Your task to perform on an android device: turn on improve location accuracy Image 0: 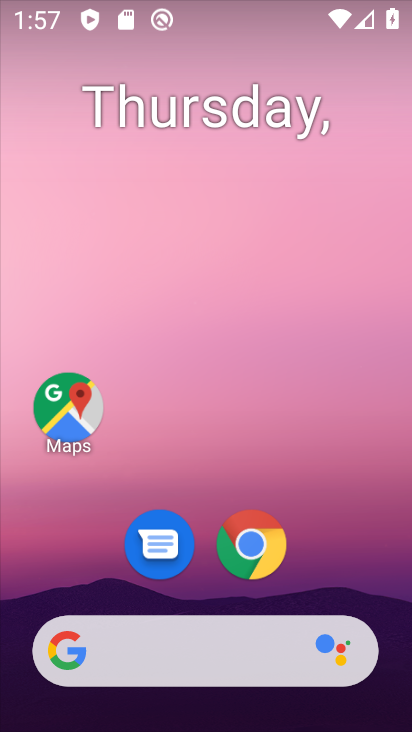
Step 0: drag from (312, 583) to (169, 118)
Your task to perform on an android device: turn on improve location accuracy Image 1: 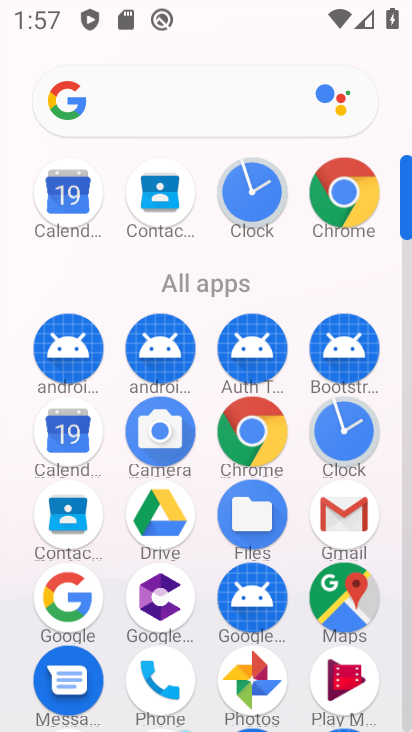
Step 1: drag from (212, 609) to (201, 240)
Your task to perform on an android device: turn on improve location accuracy Image 2: 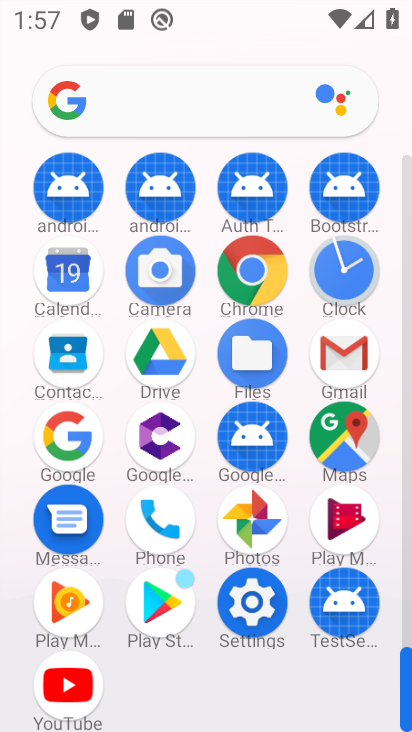
Step 2: click (255, 611)
Your task to perform on an android device: turn on improve location accuracy Image 3: 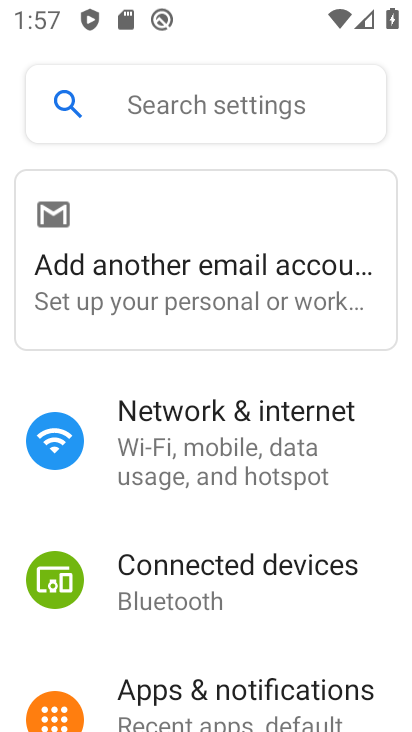
Step 3: drag from (255, 611) to (256, 177)
Your task to perform on an android device: turn on improve location accuracy Image 4: 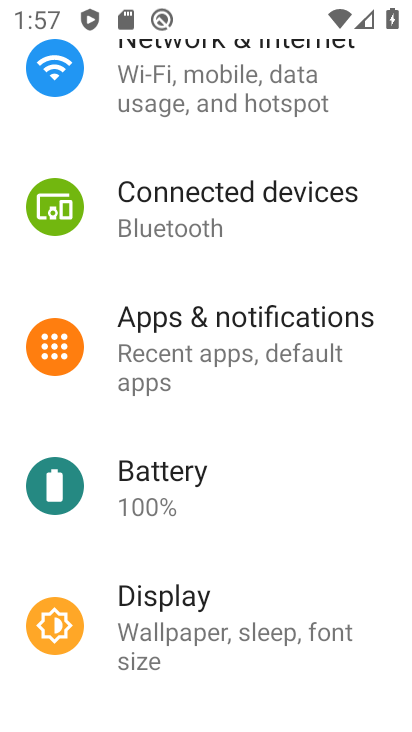
Step 4: drag from (297, 686) to (270, 330)
Your task to perform on an android device: turn on improve location accuracy Image 5: 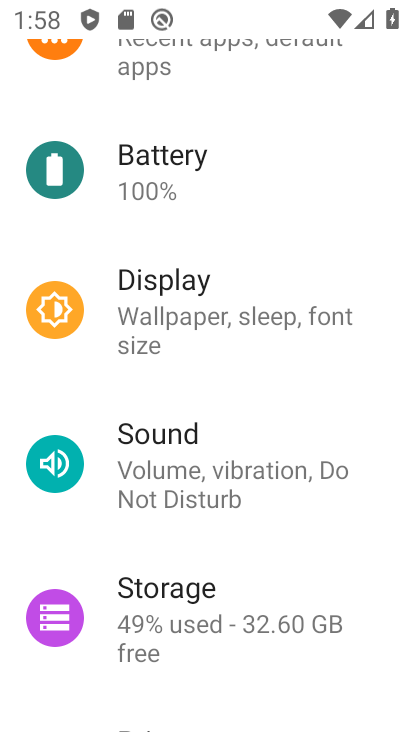
Step 5: drag from (261, 660) to (265, 244)
Your task to perform on an android device: turn on improve location accuracy Image 6: 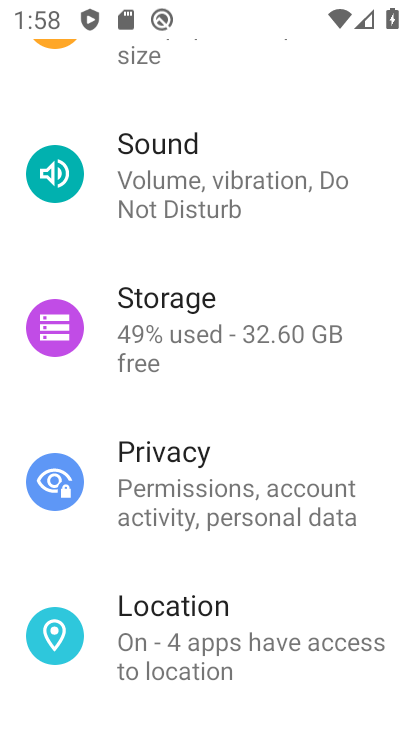
Step 6: click (187, 634)
Your task to perform on an android device: turn on improve location accuracy Image 7: 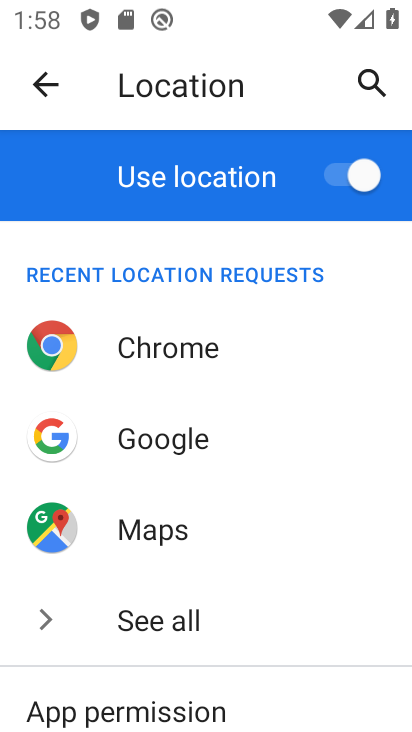
Step 7: drag from (184, 681) to (173, 161)
Your task to perform on an android device: turn on improve location accuracy Image 8: 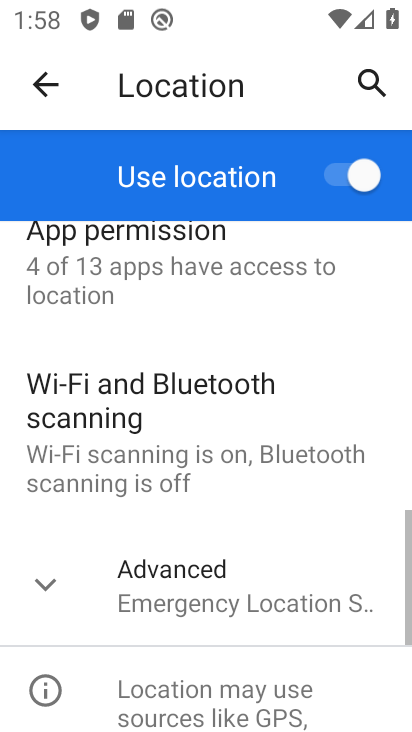
Step 8: click (199, 563)
Your task to perform on an android device: turn on improve location accuracy Image 9: 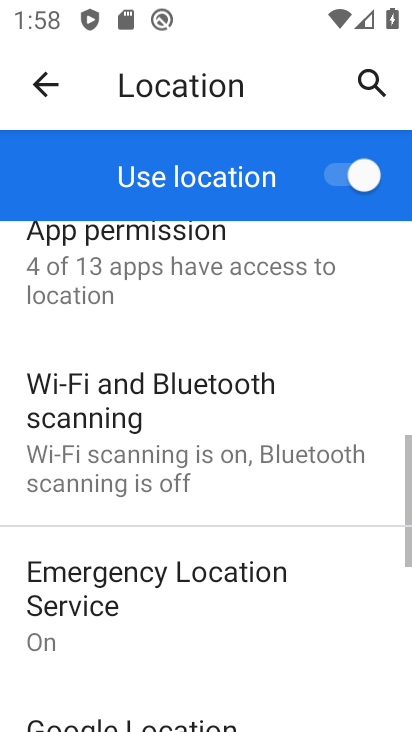
Step 9: drag from (199, 563) to (213, 360)
Your task to perform on an android device: turn on improve location accuracy Image 10: 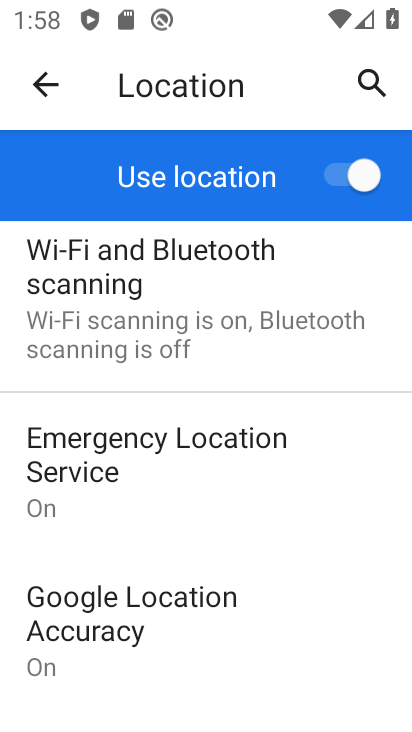
Step 10: click (83, 645)
Your task to perform on an android device: turn on improve location accuracy Image 11: 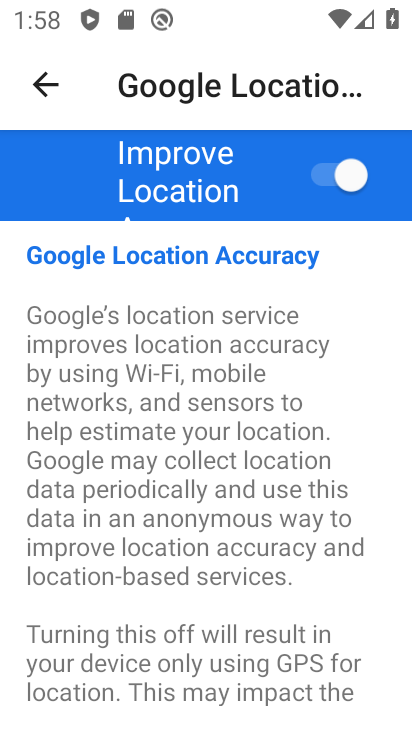
Step 11: task complete